Your task to perform on an android device: What's the weather? Image 0: 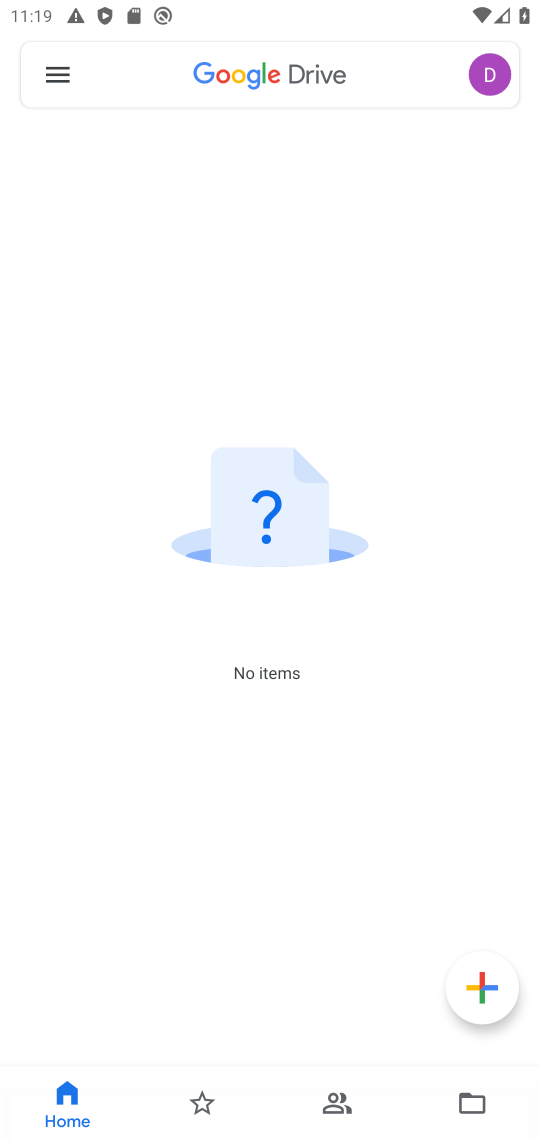
Step 0: press home button
Your task to perform on an android device: What's the weather? Image 1: 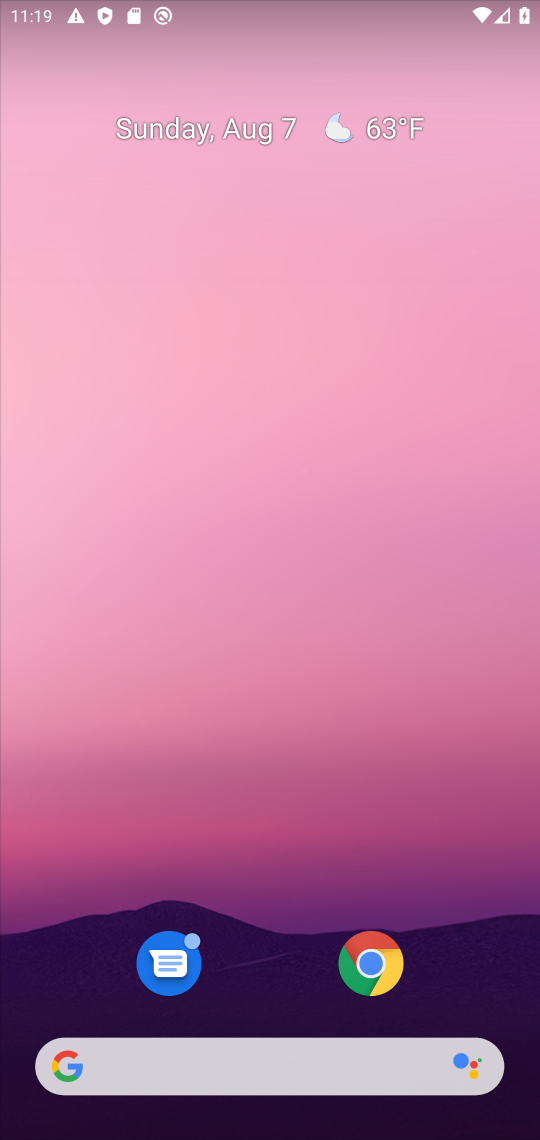
Step 1: drag from (478, 978) to (300, 9)
Your task to perform on an android device: What's the weather? Image 2: 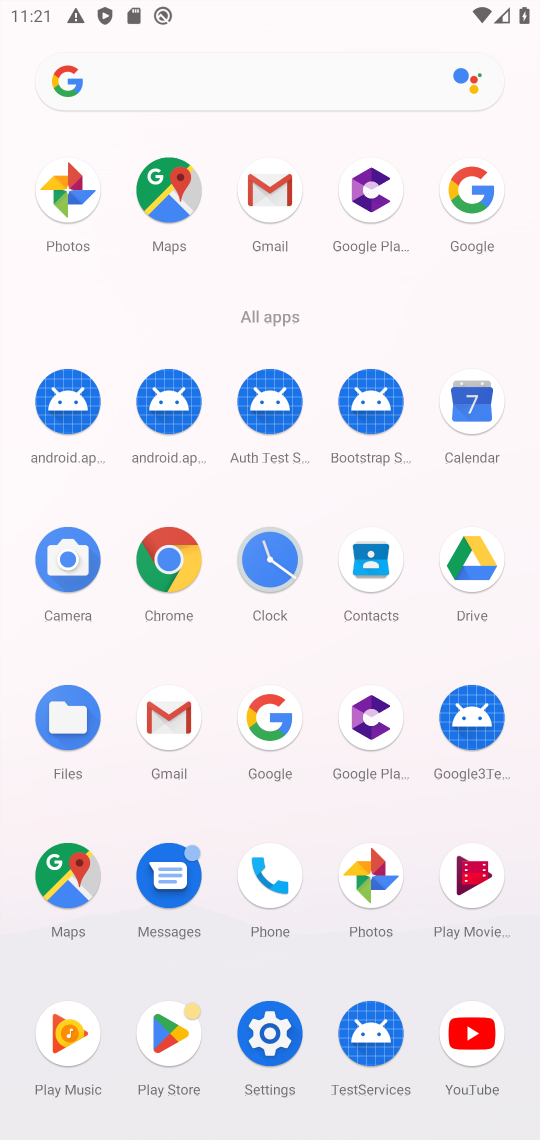
Step 2: click (291, 740)
Your task to perform on an android device: What's the weather? Image 3: 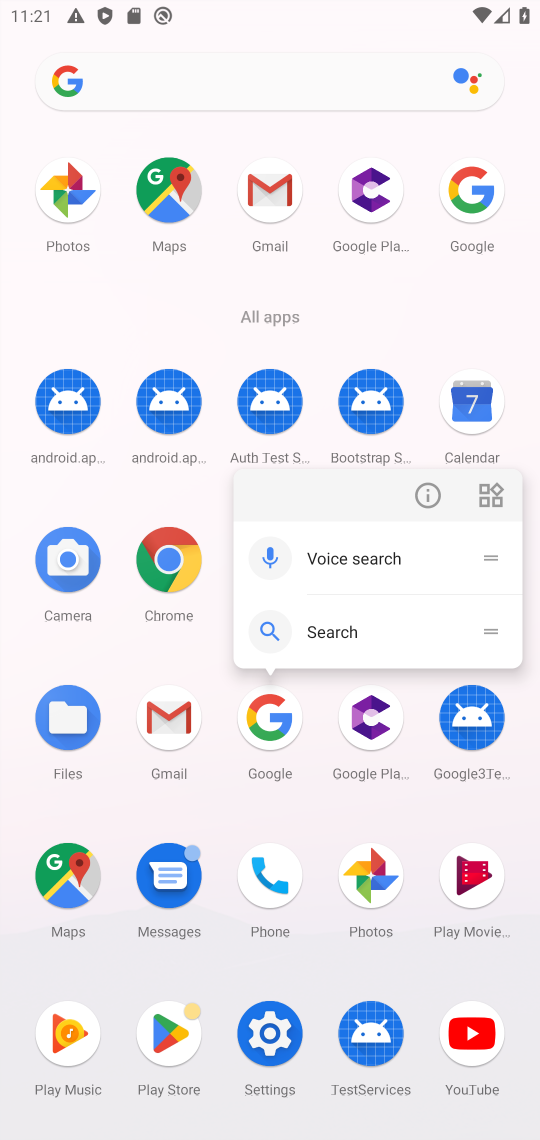
Step 3: click (252, 712)
Your task to perform on an android device: What's the weather? Image 4: 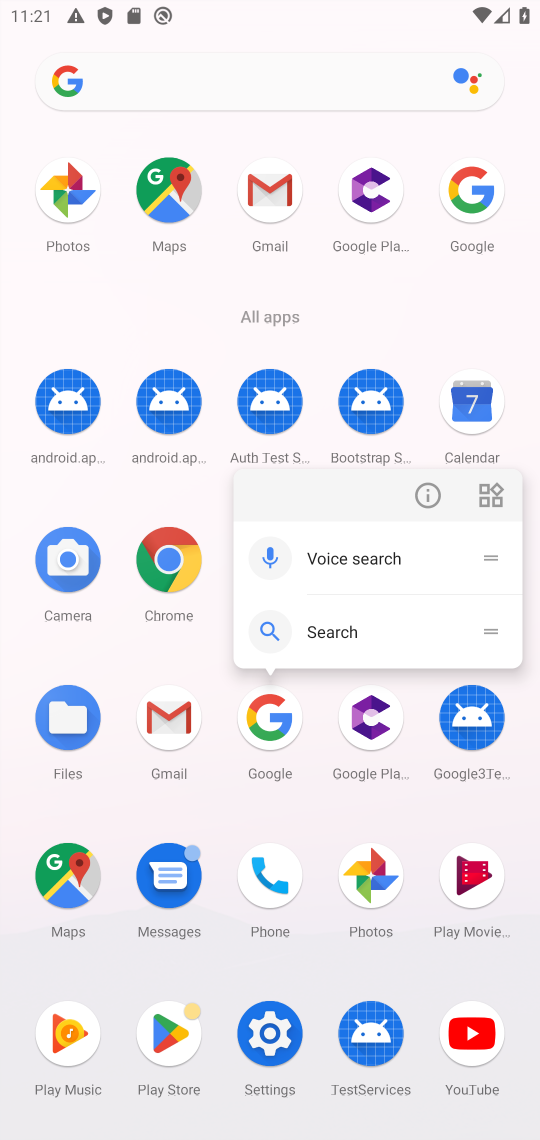
Step 4: click (247, 714)
Your task to perform on an android device: What's the weather? Image 5: 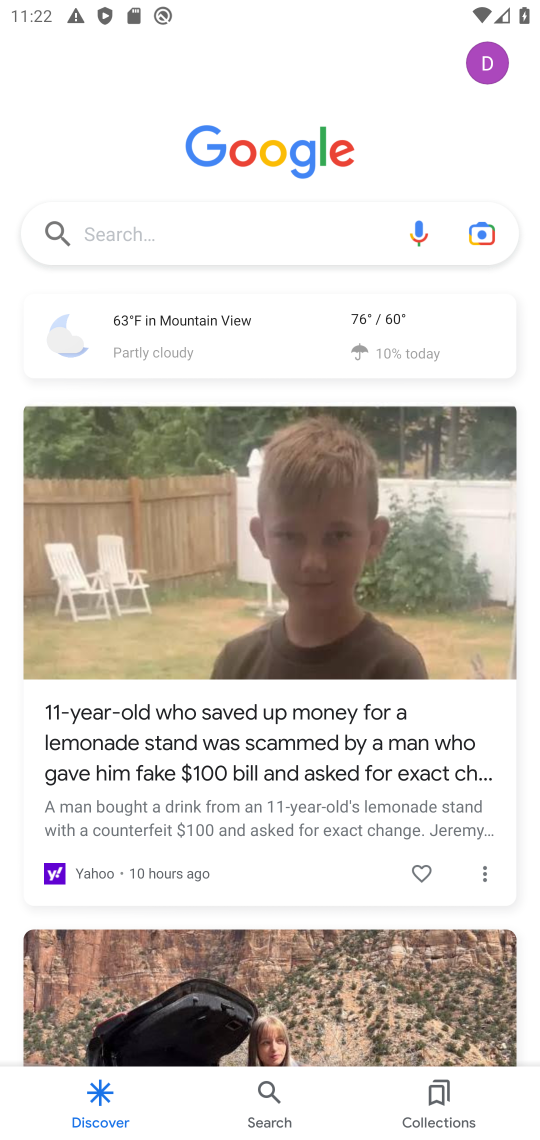
Step 5: click (184, 229)
Your task to perform on an android device: What's the weather? Image 6: 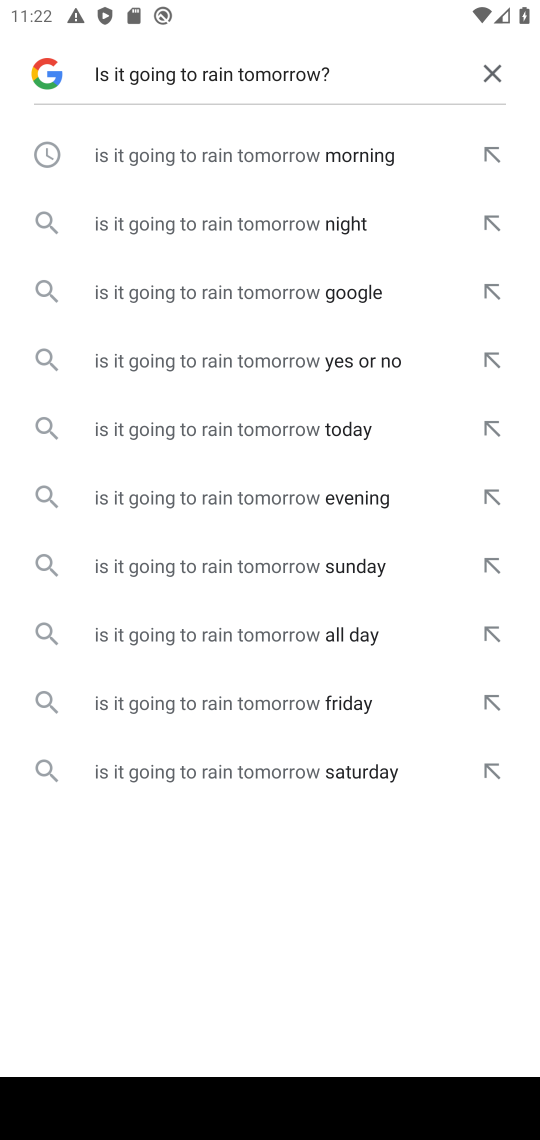
Step 6: click (490, 70)
Your task to perform on an android device: What's the weather? Image 7: 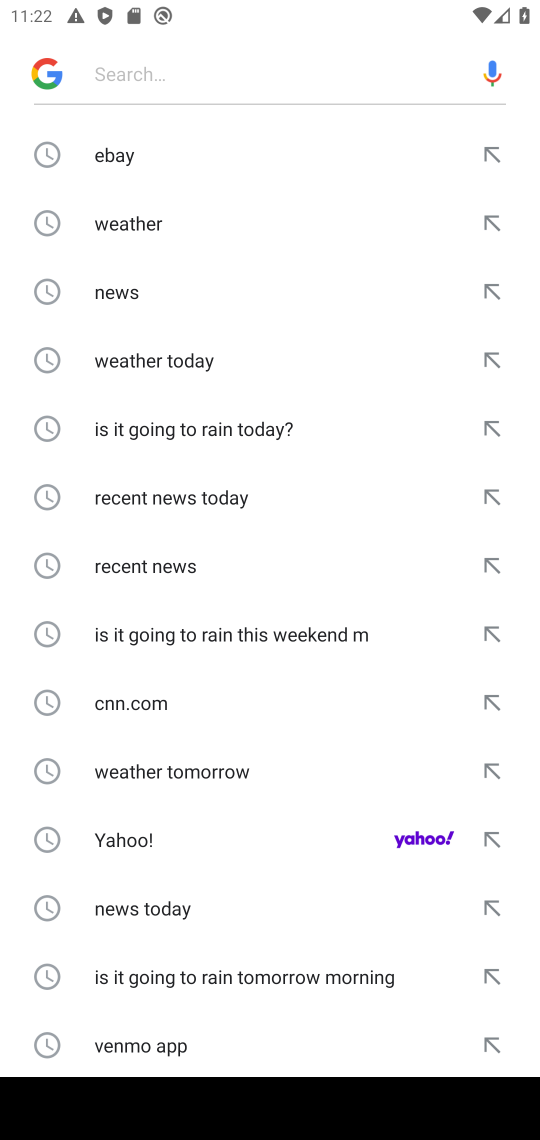
Step 7: click (450, 1138)
Your task to perform on an android device: What's the weather? Image 8: 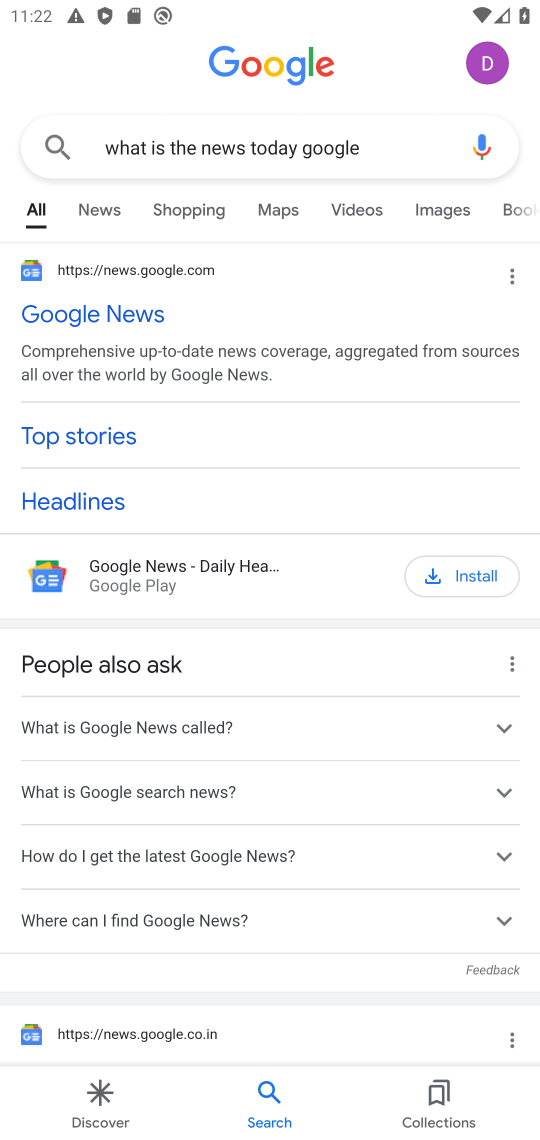
Step 8: task complete